Your task to perform on an android device: check storage Image 0: 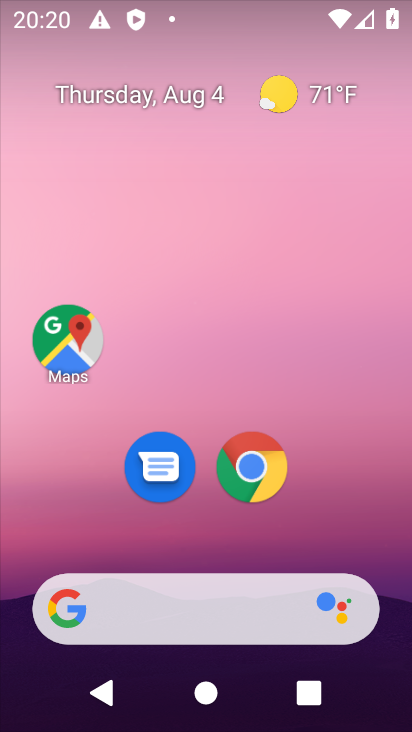
Step 0: drag from (388, 547) to (322, 127)
Your task to perform on an android device: check storage Image 1: 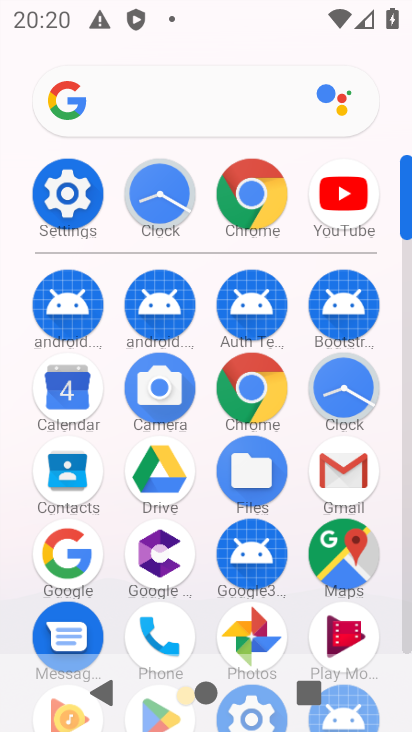
Step 1: click (66, 224)
Your task to perform on an android device: check storage Image 2: 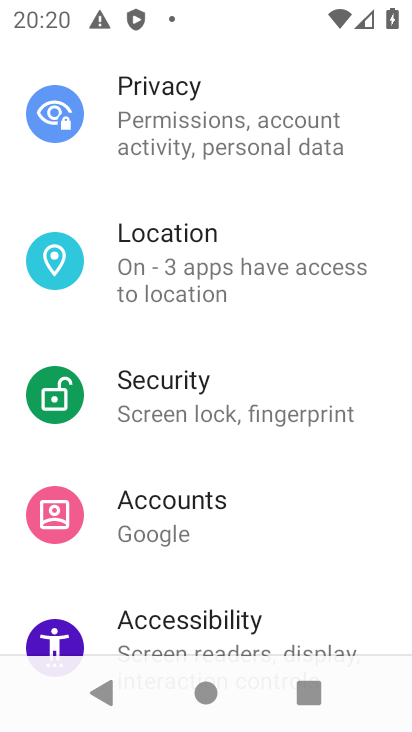
Step 2: drag from (139, 145) to (118, 611)
Your task to perform on an android device: check storage Image 3: 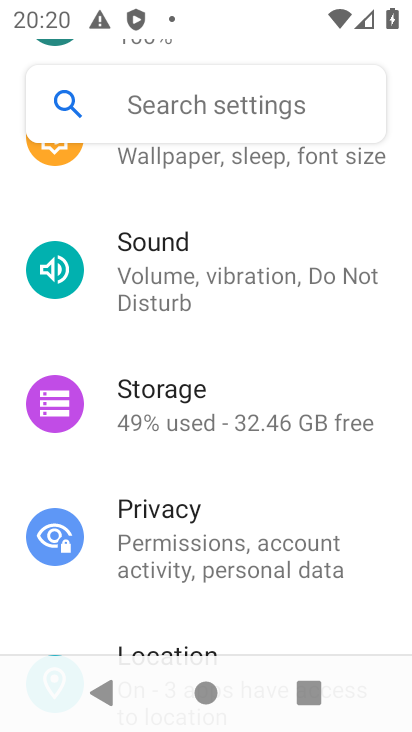
Step 3: drag from (171, 333) to (167, 424)
Your task to perform on an android device: check storage Image 4: 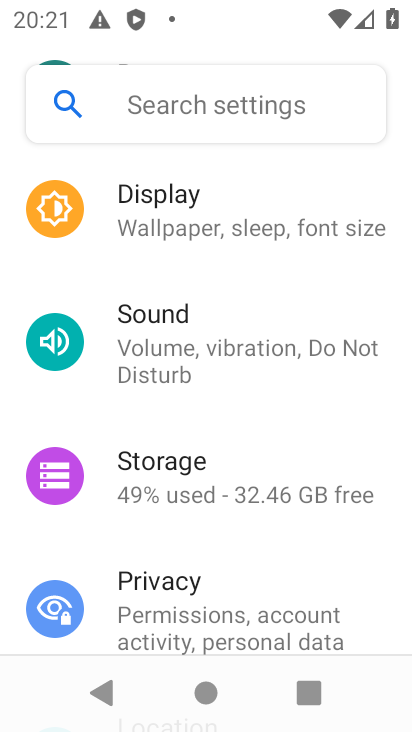
Step 4: press home button
Your task to perform on an android device: check storage Image 5: 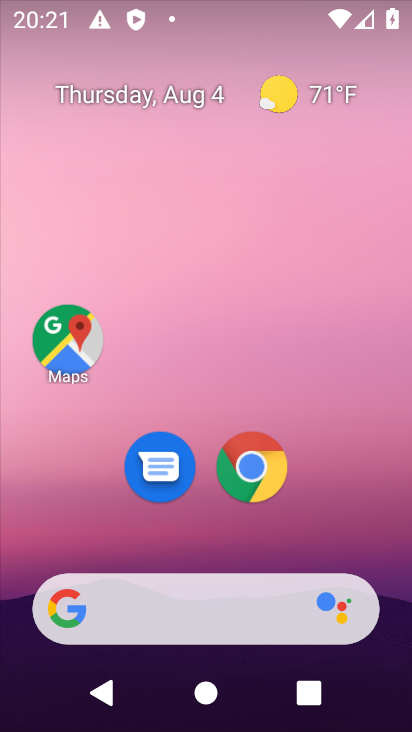
Step 5: drag from (233, 501) to (233, 15)
Your task to perform on an android device: check storage Image 6: 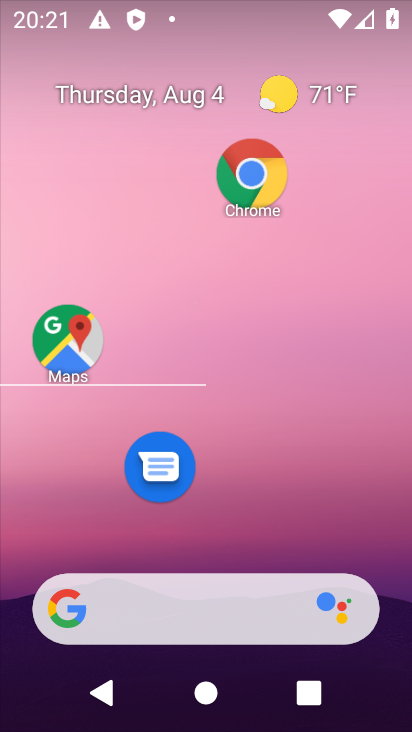
Step 6: click (286, 500)
Your task to perform on an android device: check storage Image 7: 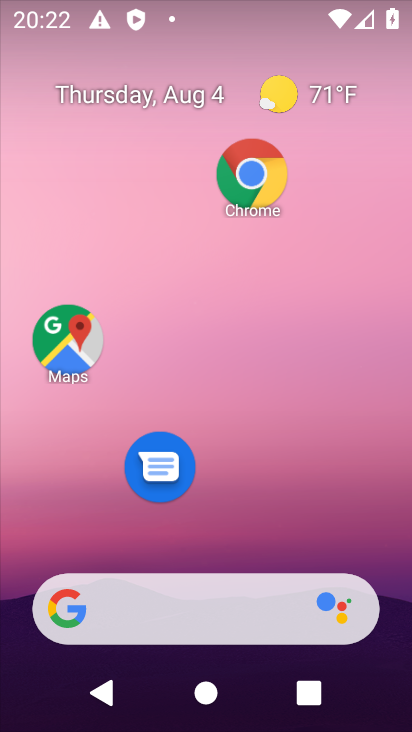
Step 7: drag from (282, 505) to (242, 18)
Your task to perform on an android device: check storage Image 8: 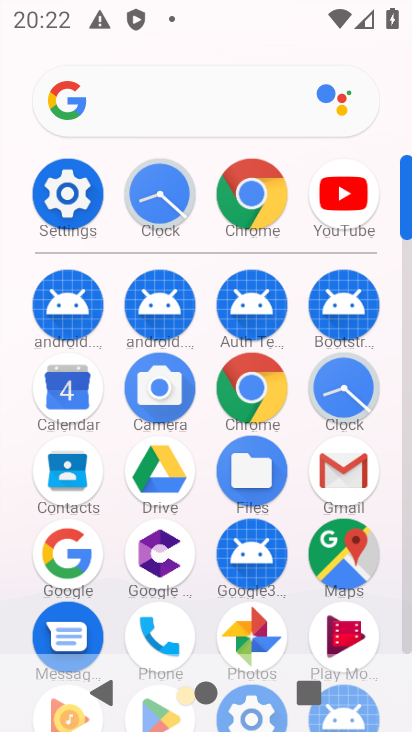
Step 8: click (61, 197)
Your task to perform on an android device: check storage Image 9: 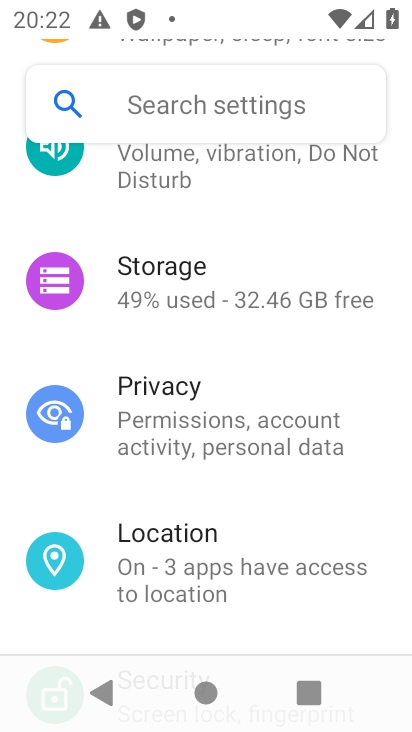
Step 9: drag from (259, 578) to (277, 250)
Your task to perform on an android device: check storage Image 10: 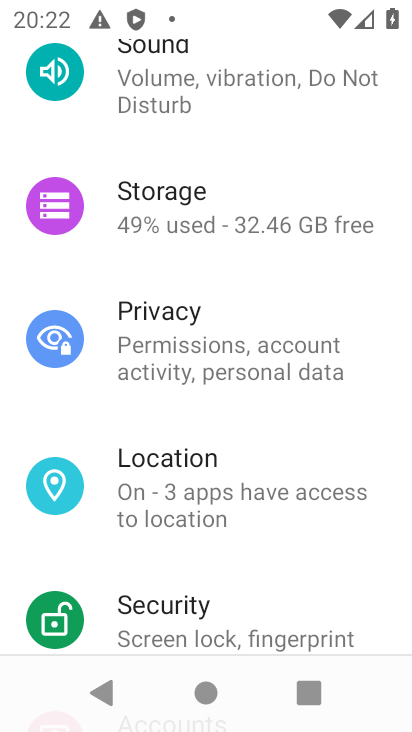
Step 10: click (139, 205)
Your task to perform on an android device: check storage Image 11: 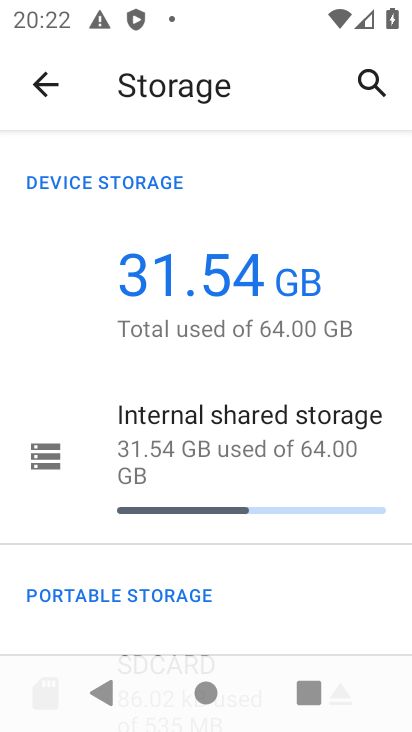
Step 11: task complete